Your task to perform on an android device: Show me popular videos on Youtube Image 0: 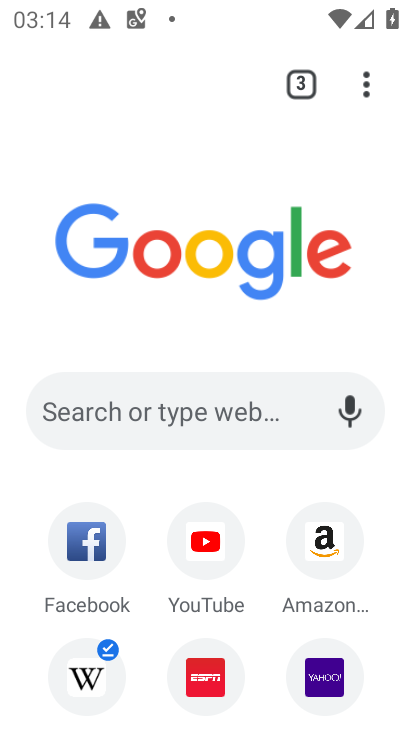
Step 0: press home button
Your task to perform on an android device: Show me popular videos on Youtube Image 1: 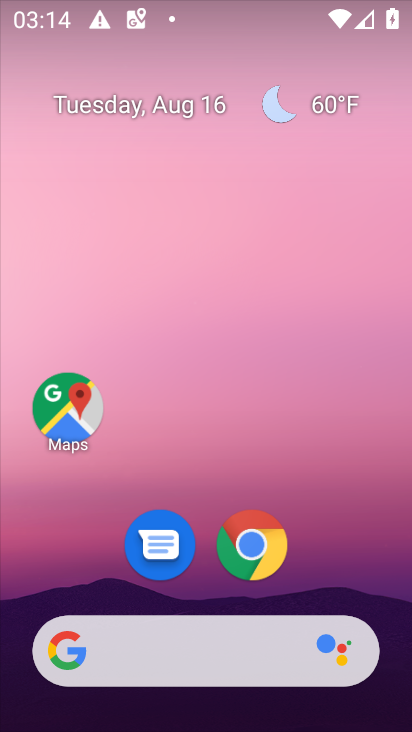
Step 1: drag from (169, 616) to (119, 331)
Your task to perform on an android device: Show me popular videos on Youtube Image 2: 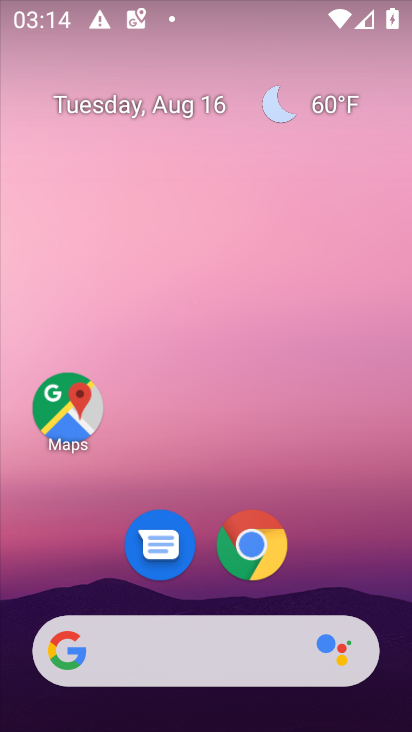
Step 2: drag from (195, 512) to (186, 306)
Your task to perform on an android device: Show me popular videos on Youtube Image 3: 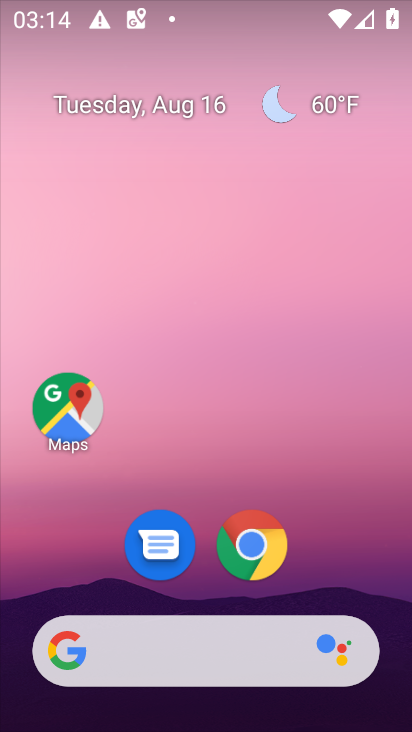
Step 3: drag from (142, 545) to (140, 247)
Your task to perform on an android device: Show me popular videos on Youtube Image 4: 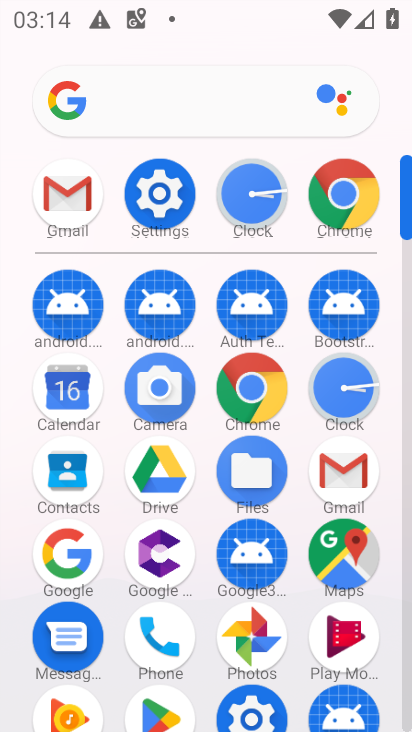
Step 4: drag from (199, 601) to (193, 346)
Your task to perform on an android device: Show me popular videos on Youtube Image 5: 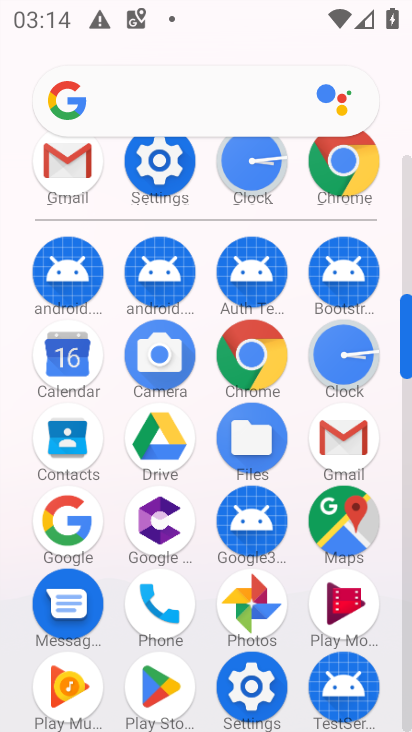
Step 5: drag from (177, 726) to (179, 441)
Your task to perform on an android device: Show me popular videos on Youtube Image 6: 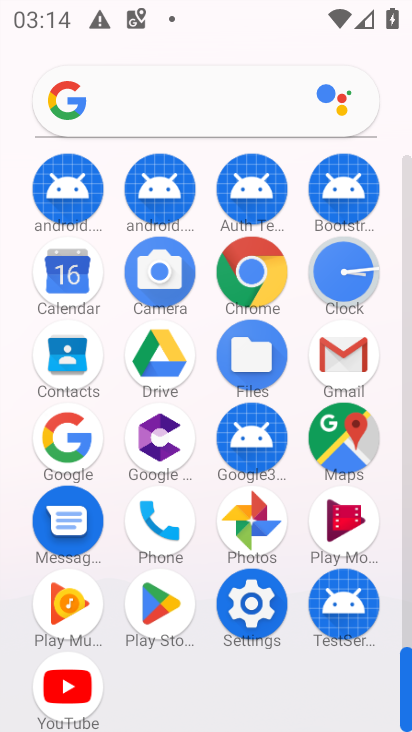
Step 6: click (69, 693)
Your task to perform on an android device: Show me popular videos on Youtube Image 7: 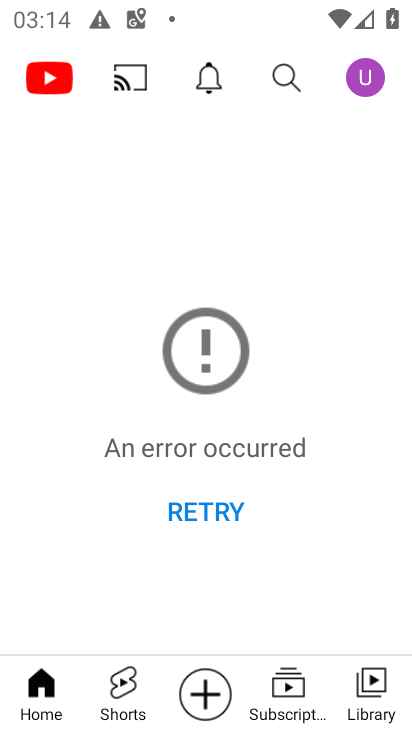
Step 7: click (203, 507)
Your task to perform on an android device: Show me popular videos on Youtube Image 8: 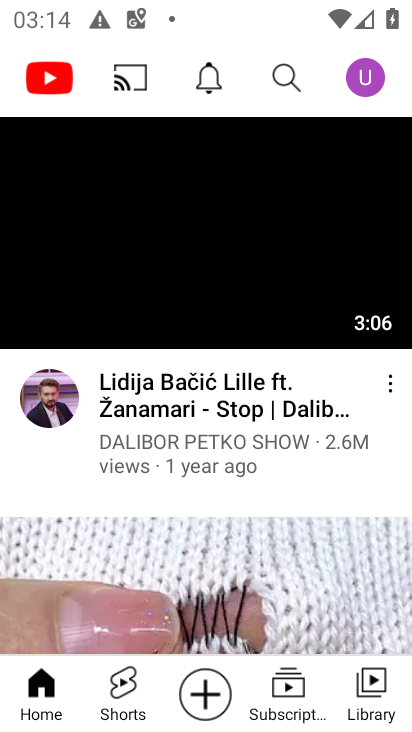
Step 8: task complete